Your task to perform on an android device: open the mobile data screen to see how much data has been used Image 0: 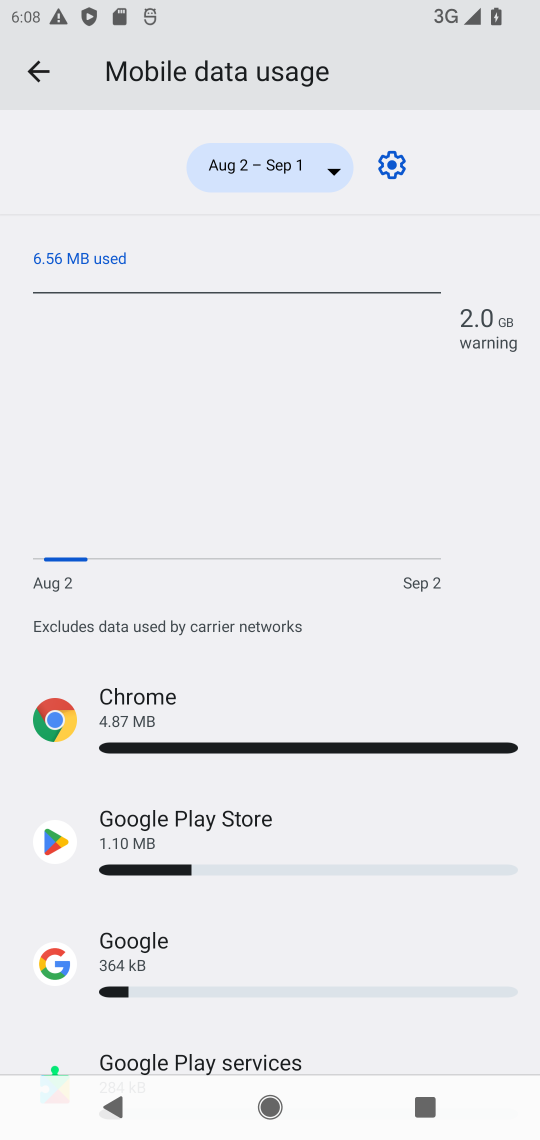
Step 0: press home button
Your task to perform on an android device: open the mobile data screen to see how much data has been used Image 1: 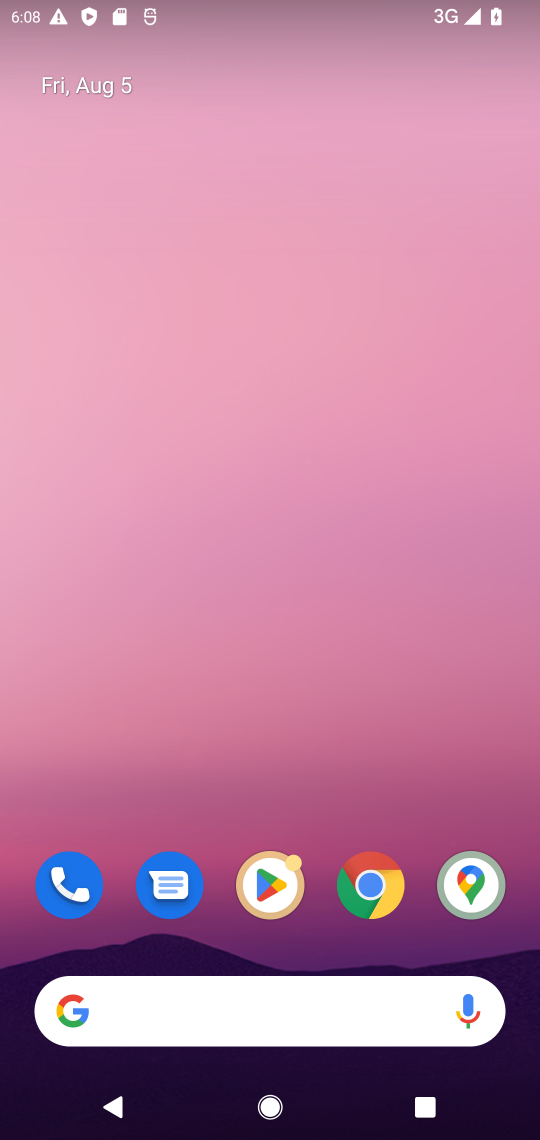
Step 1: drag from (187, 758) to (345, 67)
Your task to perform on an android device: open the mobile data screen to see how much data has been used Image 2: 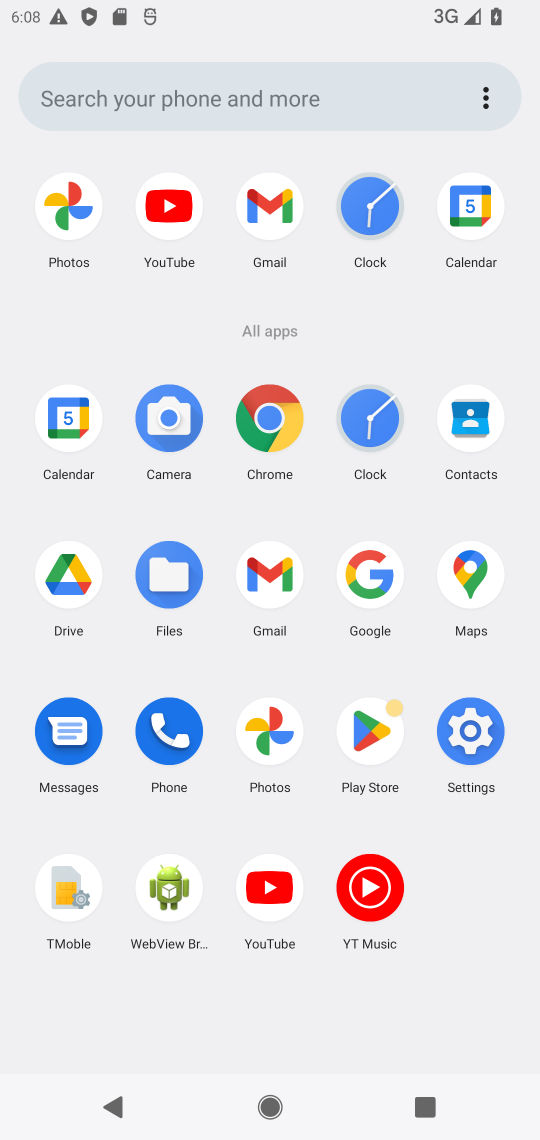
Step 2: click (476, 739)
Your task to perform on an android device: open the mobile data screen to see how much data has been used Image 3: 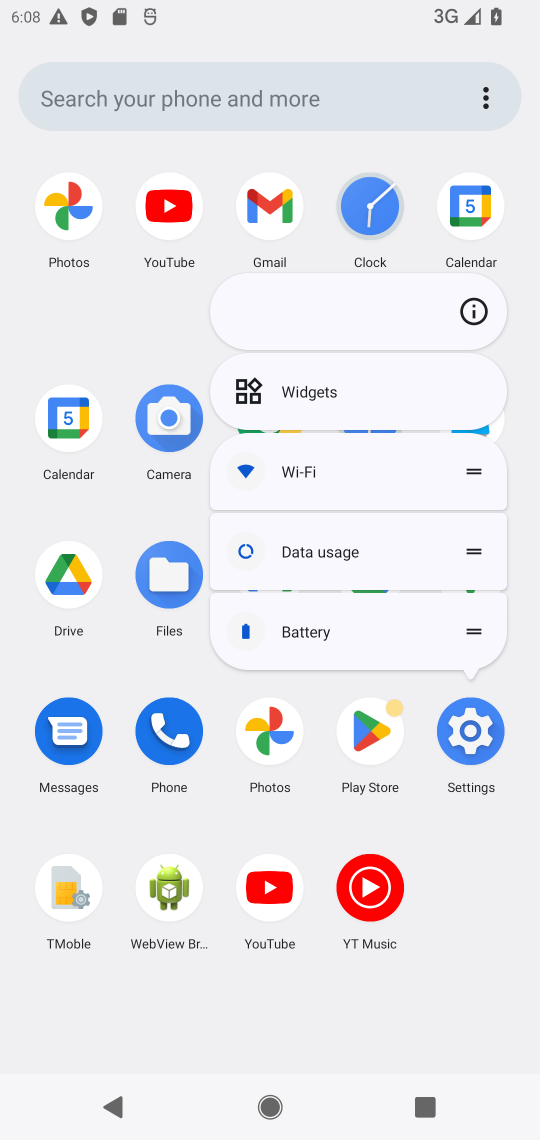
Step 3: click (483, 759)
Your task to perform on an android device: open the mobile data screen to see how much data has been used Image 4: 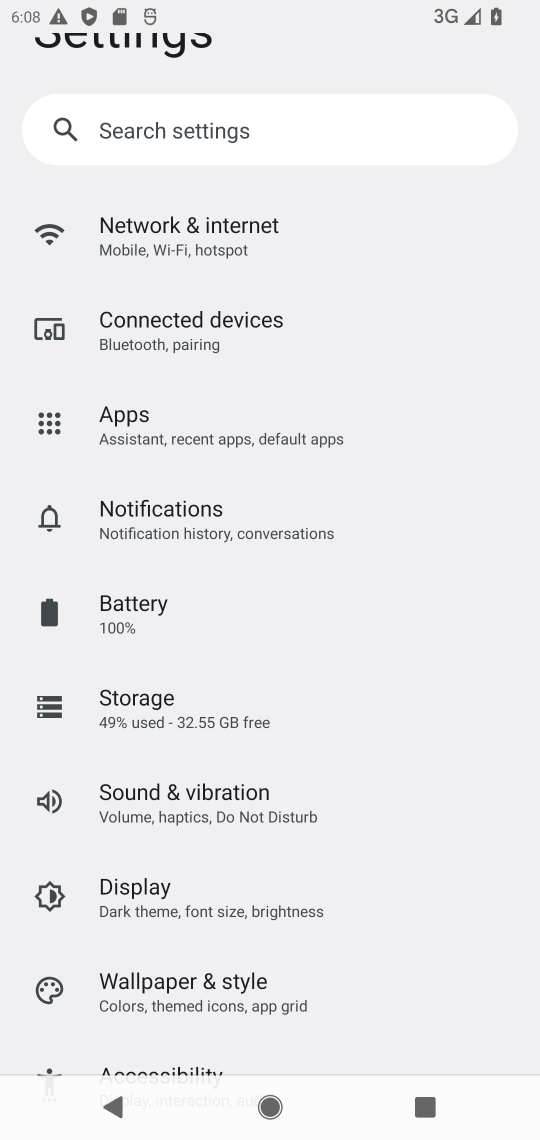
Step 4: click (213, 251)
Your task to perform on an android device: open the mobile data screen to see how much data has been used Image 5: 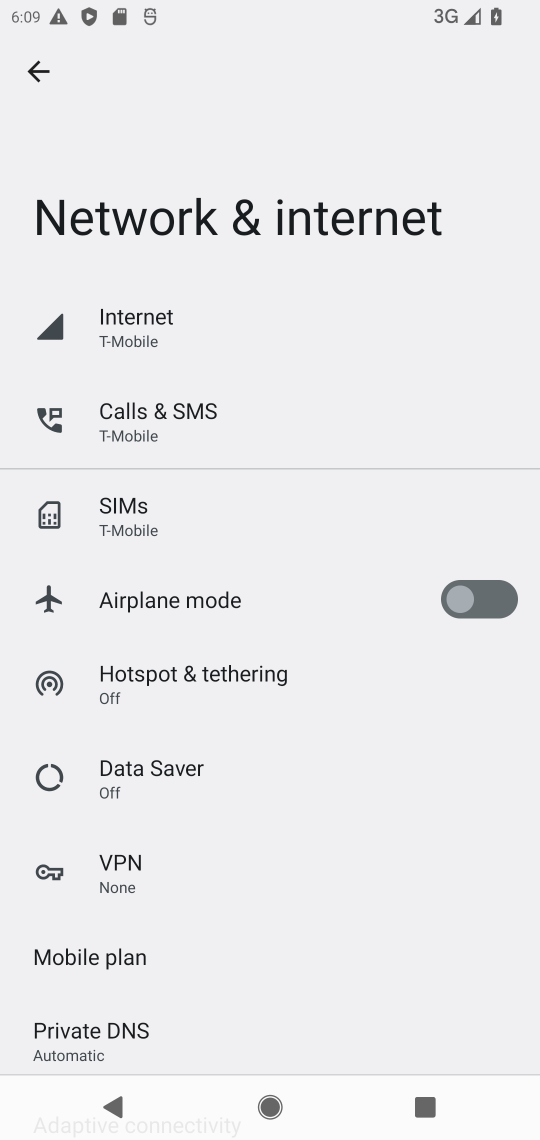
Step 5: click (135, 316)
Your task to perform on an android device: open the mobile data screen to see how much data has been used Image 6: 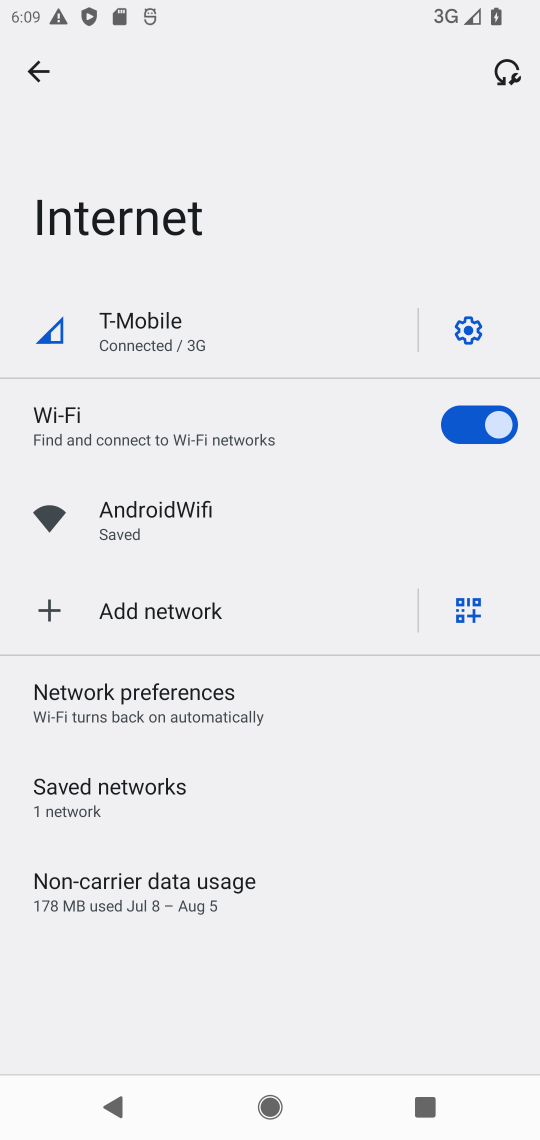
Step 6: click (486, 323)
Your task to perform on an android device: open the mobile data screen to see how much data has been used Image 7: 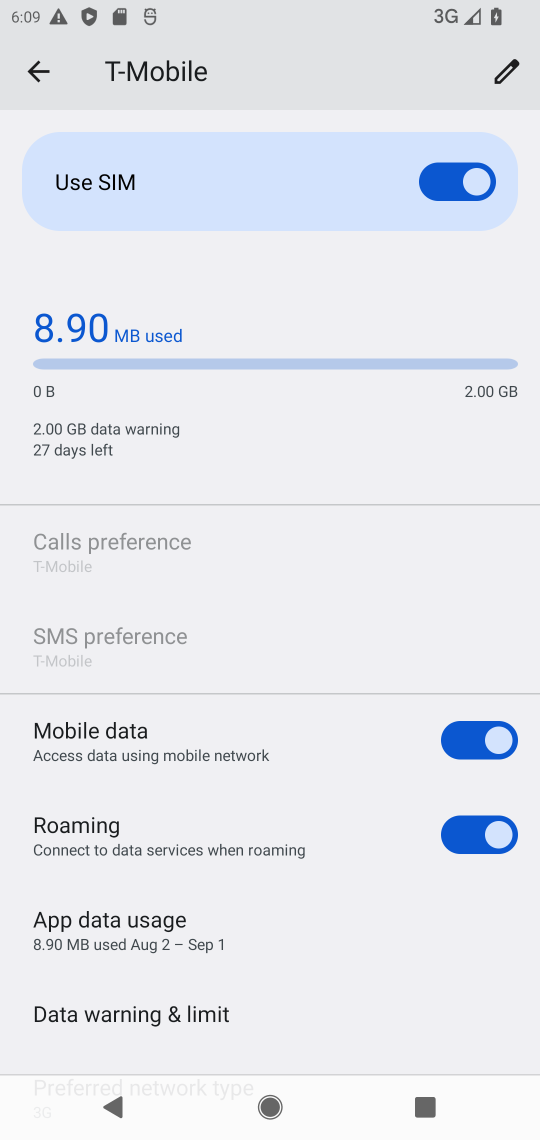
Step 7: click (159, 939)
Your task to perform on an android device: open the mobile data screen to see how much data has been used Image 8: 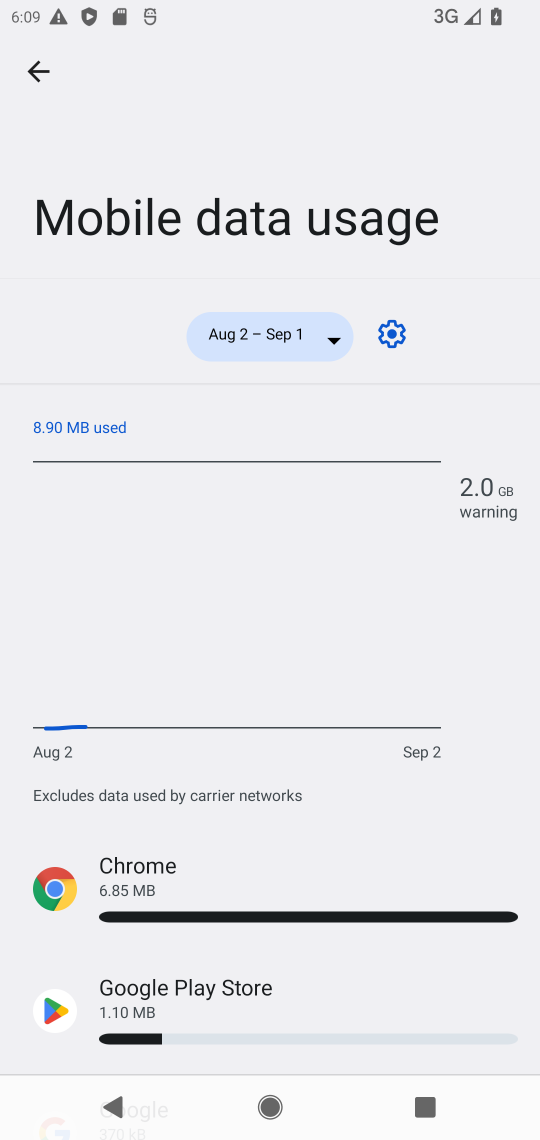
Step 8: task complete